Your task to perform on an android device: change the clock display to analog Image 0: 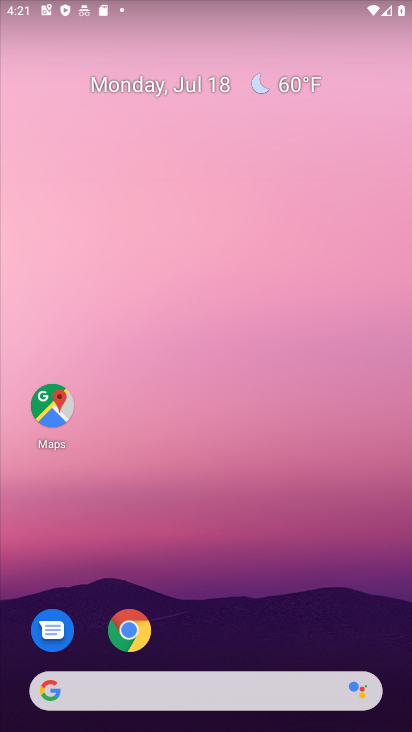
Step 0: drag from (266, 509) to (249, 240)
Your task to perform on an android device: change the clock display to analog Image 1: 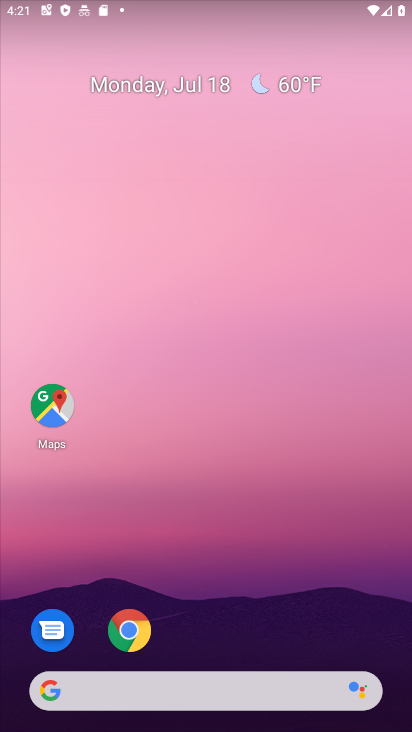
Step 1: click (149, 283)
Your task to perform on an android device: change the clock display to analog Image 2: 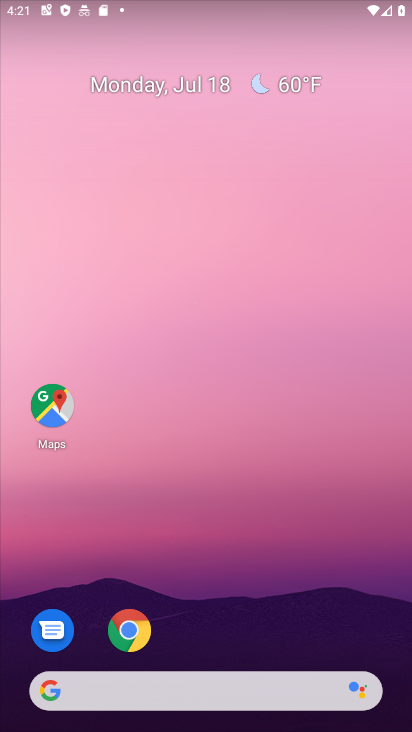
Step 2: drag from (284, 635) to (223, 366)
Your task to perform on an android device: change the clock display to analog Image 3: 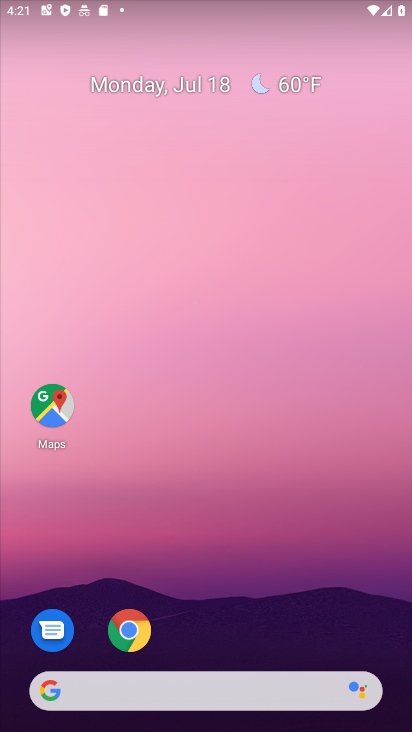
Step 3: drag from (227, 453) to (156, 140)
Your task to perform on an android device: change the clock display to analog Image 4: 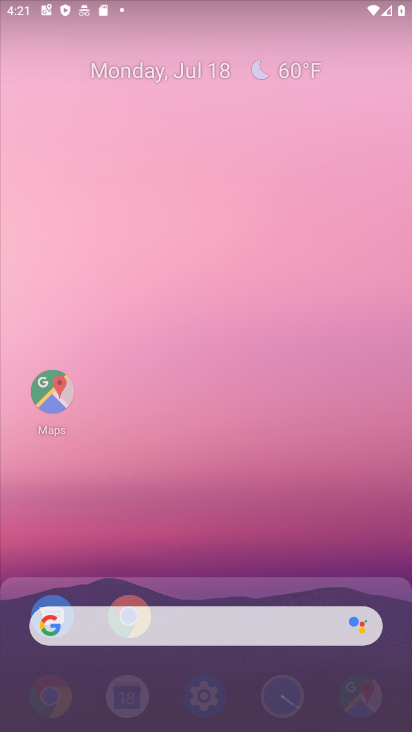
Step 4: drag from (203, 624) to (202, 252)
Your task to perform on an android device: change the clock display to analog Image 5: 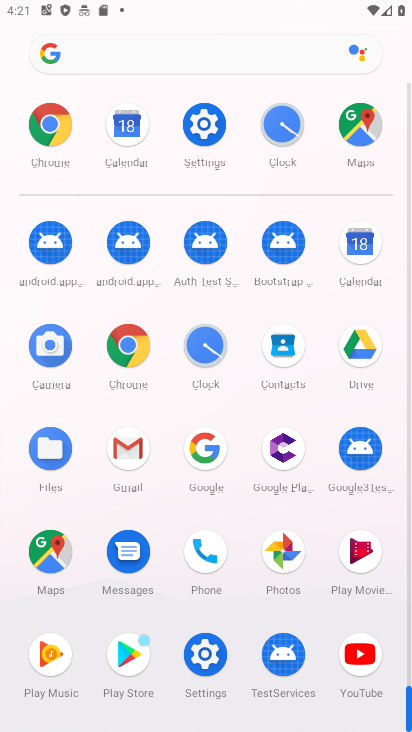
Step 5: drag from (225, 542) to (172, 131)
Your task to perform on an android device: change the clock display to analog Image 6: 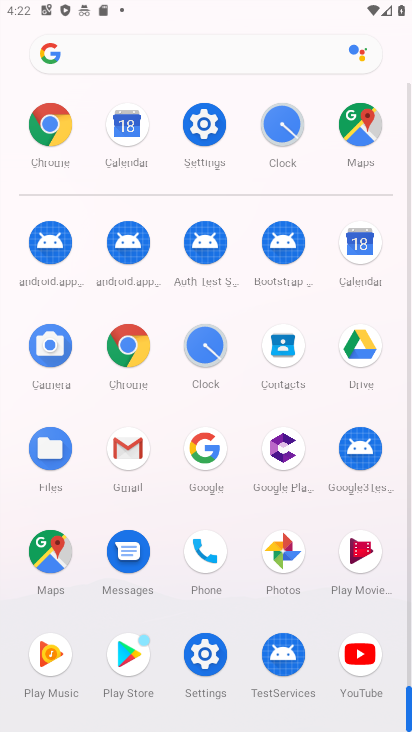
Step 6: click (199, 343)
Your task to perform on an android device: change the clock display to analog Image 7: 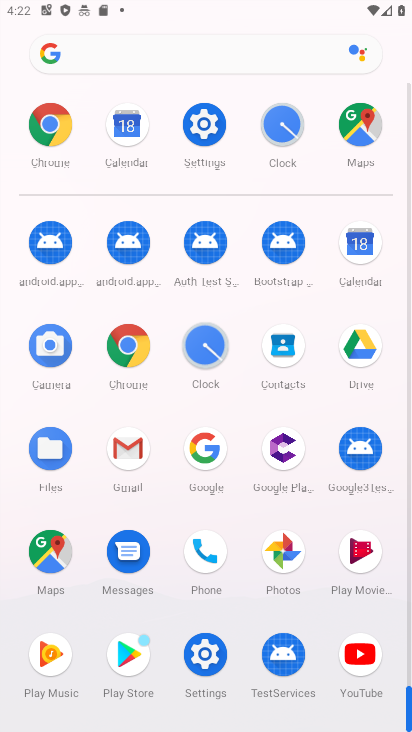
Step 7: click (199, 343)
Your task to perform on an android device: change the clock display to analog Image 8: 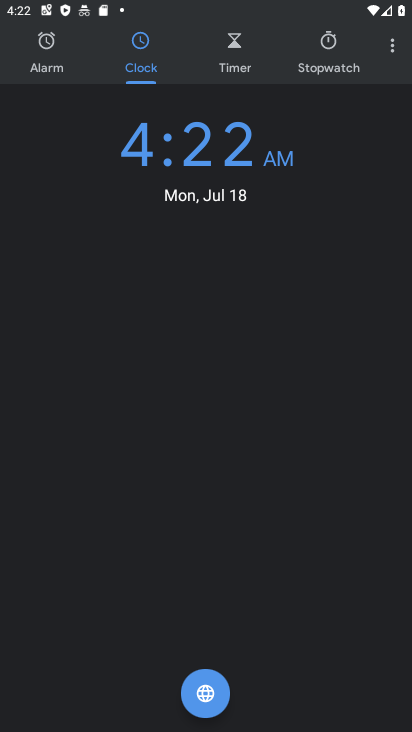
Step 8: click (383, 36)
Your task to perform on an android device: change the clock display to analog Image 9: 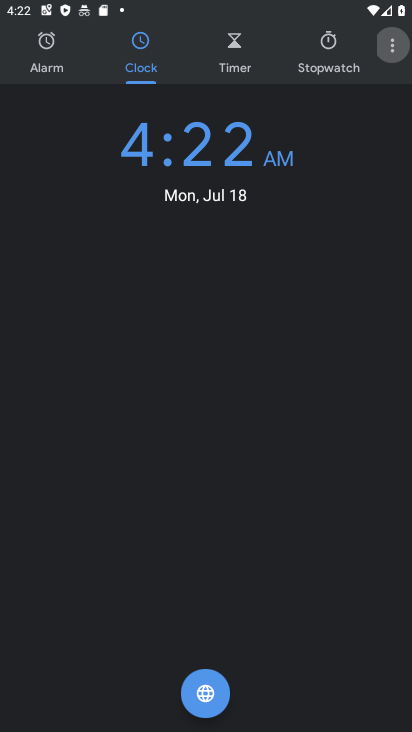
Step 9: click (384, 36)
Your task to perform on an android device: change the clock display to analog Image 10: 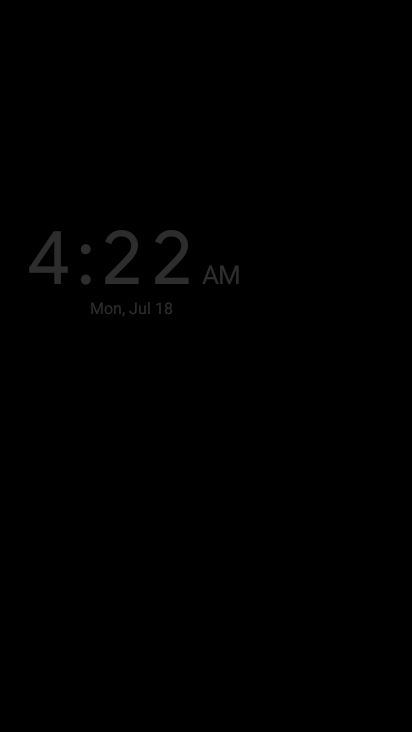
Step 10: click (271, 82)
Your task to perform on an android device: change the clock display to analog Image 11: 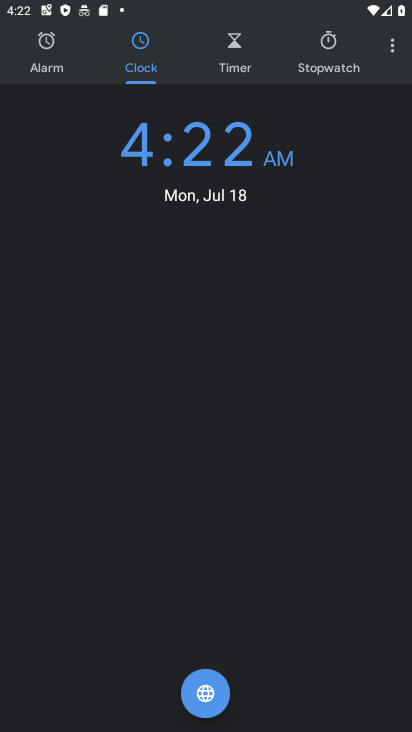
Step 11: drag from (392, 46) to (280, 89)
Your task to perform on an android device: change the clock display to analog Image 12: 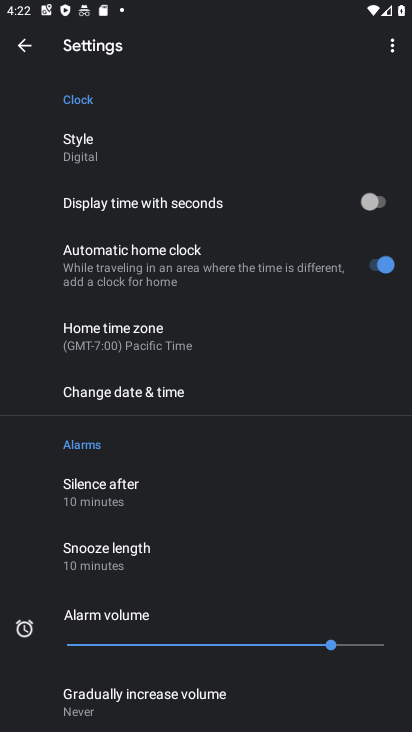
Step 12: click (79, 158)
Your task to perform on an android device: change the clock display to analog Image 13: 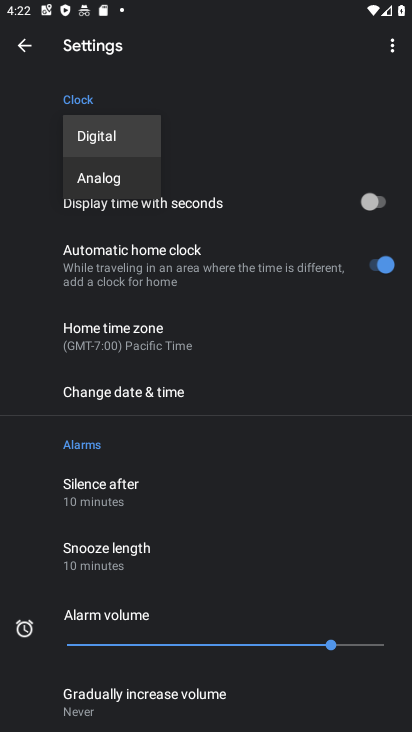
Step 13: click (103, 183)
Your task to perform on an android device: change the clock display to analog Image 14: 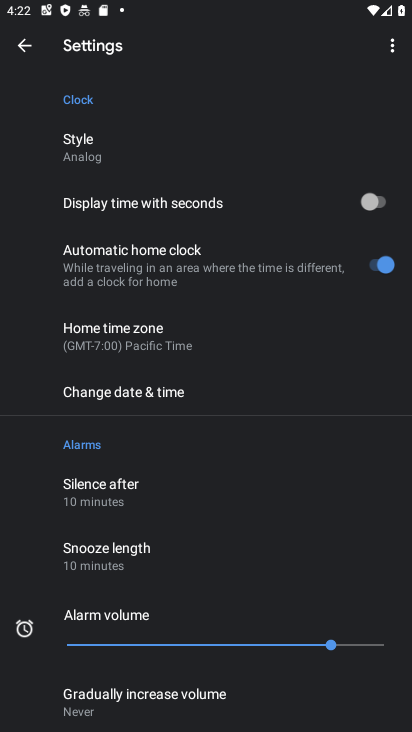
Step 14: task complete